Your task to perform on an android device: change the clock style Image 0: 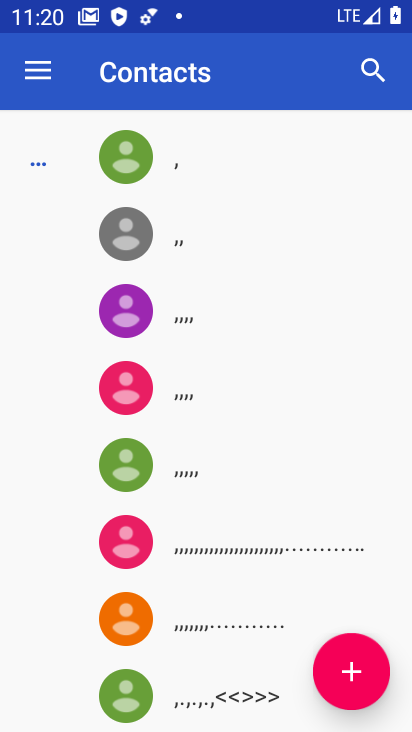
Step 0: press back button
Your task to perform on an android device: change the clock style Image 1: 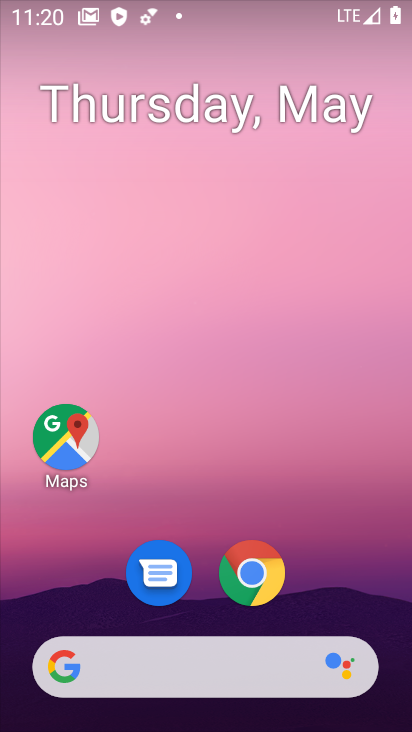
Step 1: drag from (322, 557) to (276, 54)
Your task to perform on an android device: change the clock style Image 2: 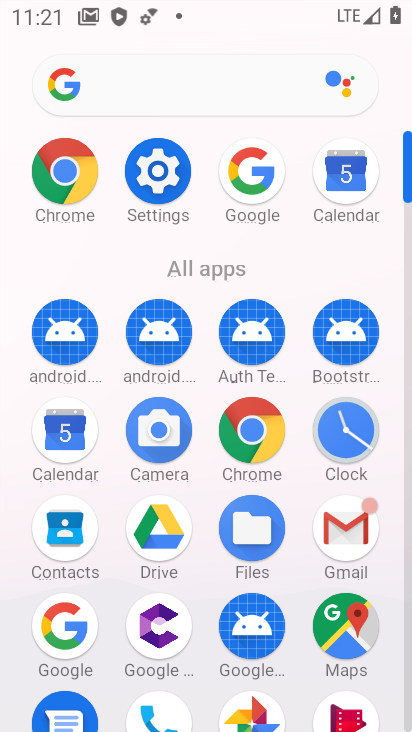
Step 2: click (347, 428)
Your task to perform on an android device: change the clock style Image 3: 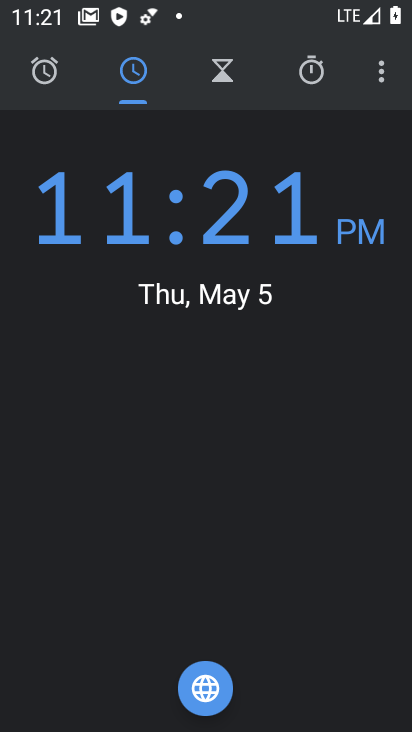
Step 3: click (384, 76)
Your task to perform on an android device: change the clock style Image 4: 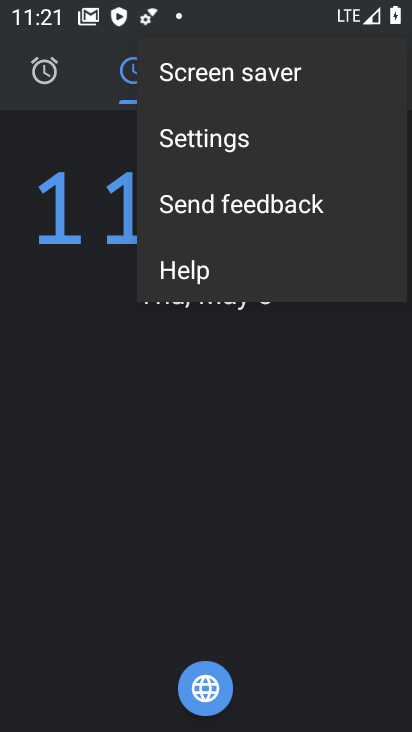
Step 4: click (253, 138)
Your task to perform on an android device: change the clock style Image 5: 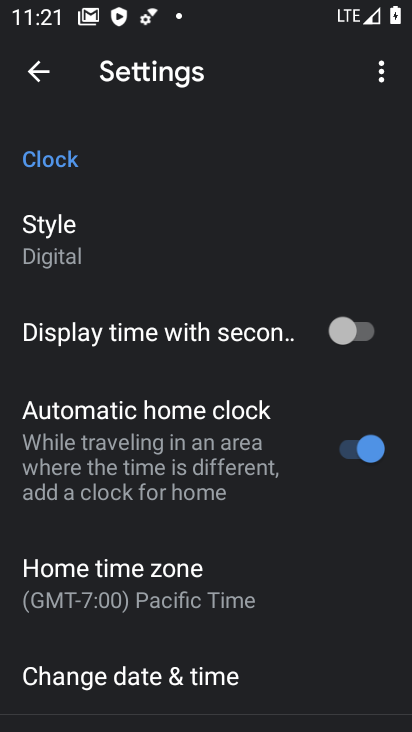
Step 5: click (81, 250)
Your task to perform on an android device: change the clock style Image 6: 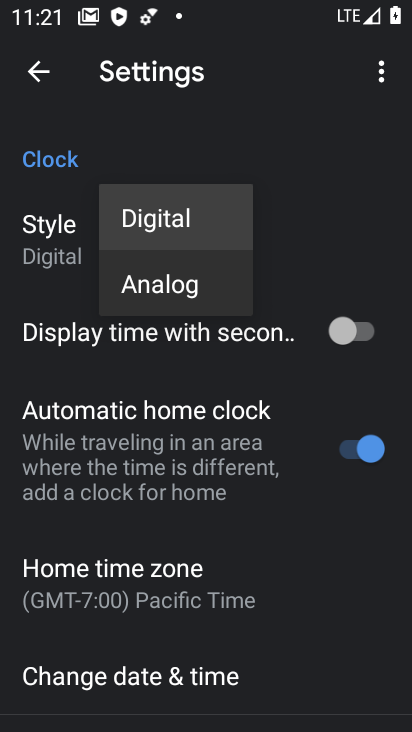
Step 6: click (158, 292)
Your task to perform on an android device: change the clock style Image 7: 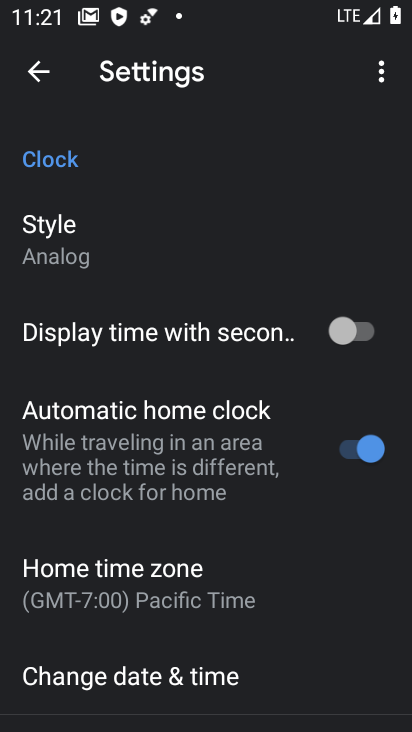
Step 7: task complete